Your task to perform on an android device: Turn off the flashlight Image 0: 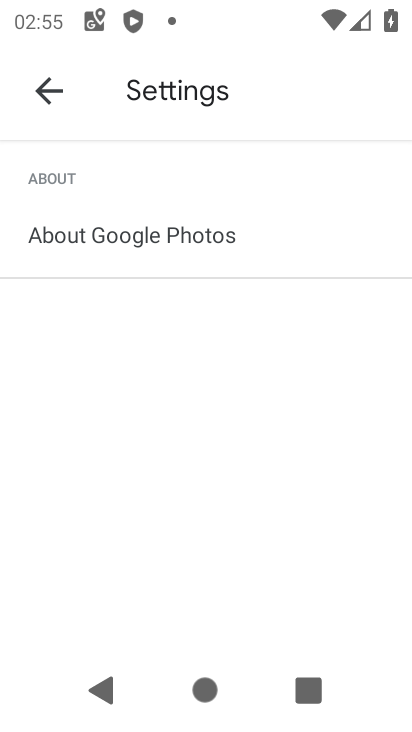
Step 0: press home button
Your task to perform on an android device: Turn off the flashlight Image 1: 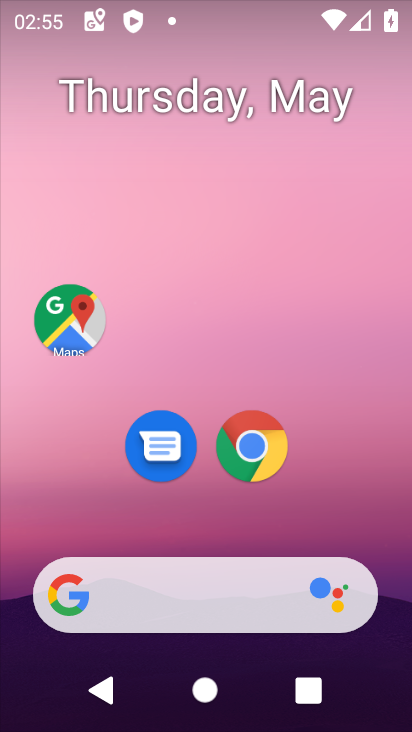
Step 1: task complete